Your task to perform on an android device: Turn off the flashlight Image 0: 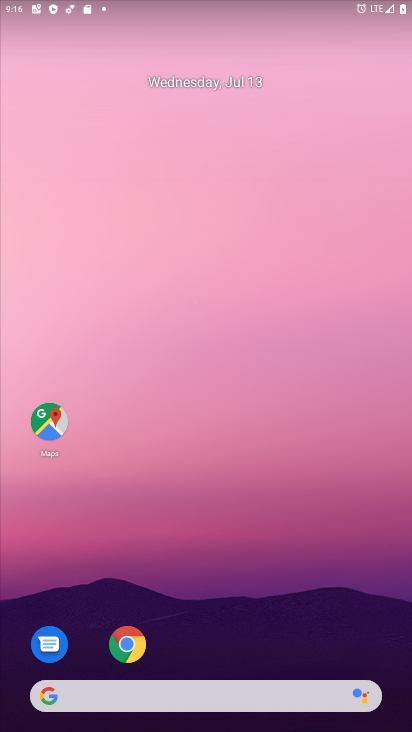
Step 0: drag from (247, 700) to (269, 3)
Your task to perform on an android device: Turn off the flashlight Image 1: 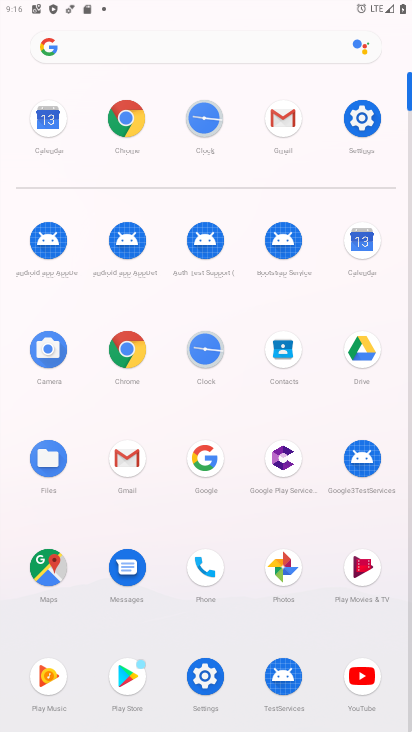
Step 1: click (358, 117)
Your task to perform on an android device: Turn off the flashlight Image 2: 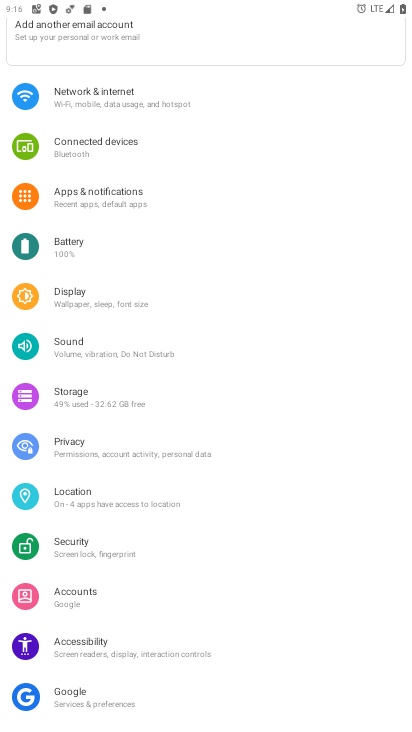
Step 2: task complete